Your task to perform on an android device: Go to wifi settings Image 0: 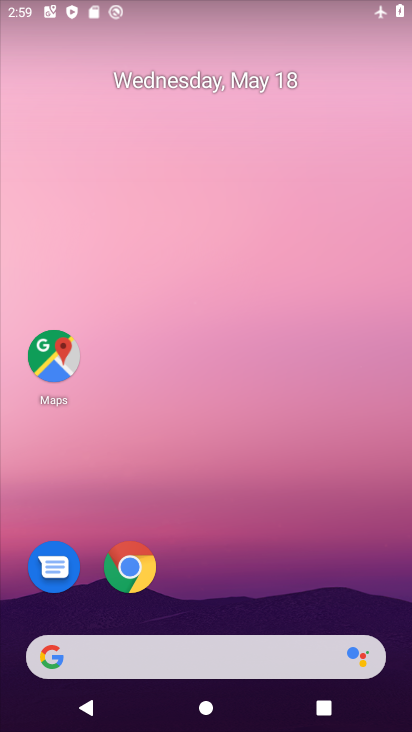
Step 0: drag from (272, 526) to (261, 133)
Your task to perform on an android device: Go to wifi settings Image 1: 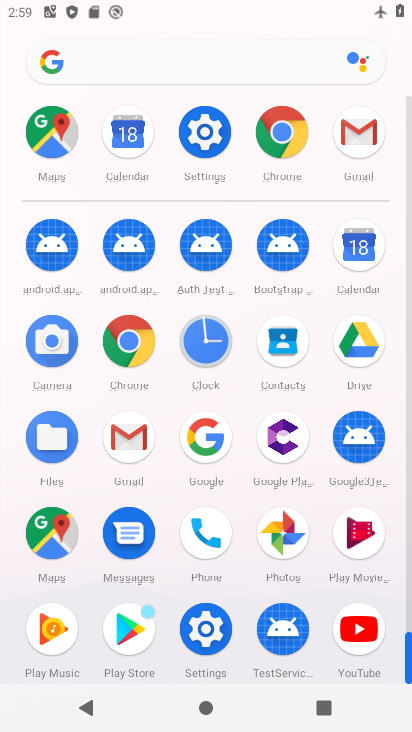
Step 1: click (203, 127)
Your task to perform on an android device: Go to wifi settings Image 2: 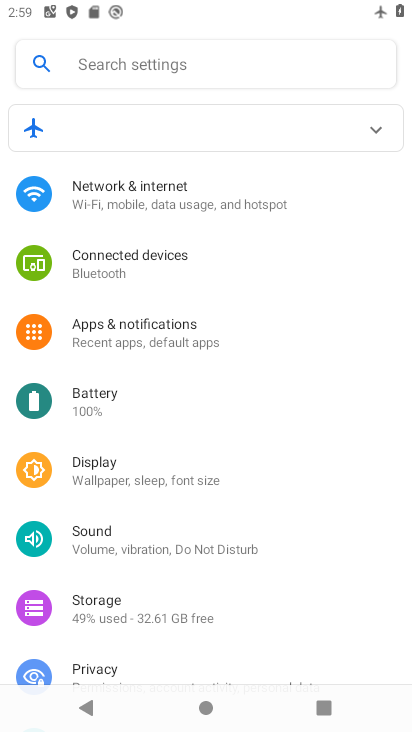
Step 2: click (167, 195)
Your task to perform on an android device: Go to wifi settings Image 3: 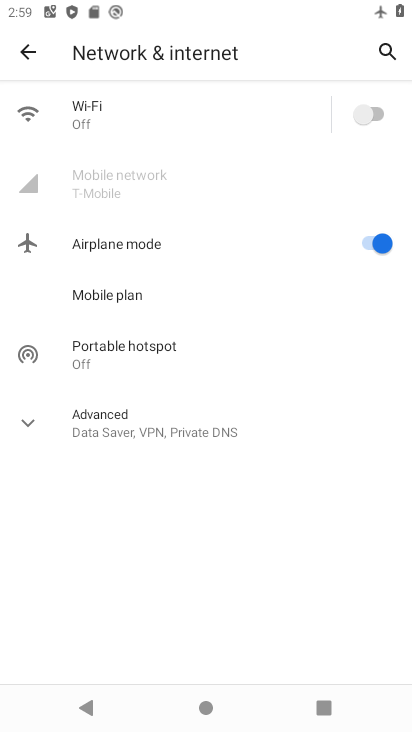
Step 3: click (171, 120)
Your task to perform on an android device: Go to wifi settings Image 4: 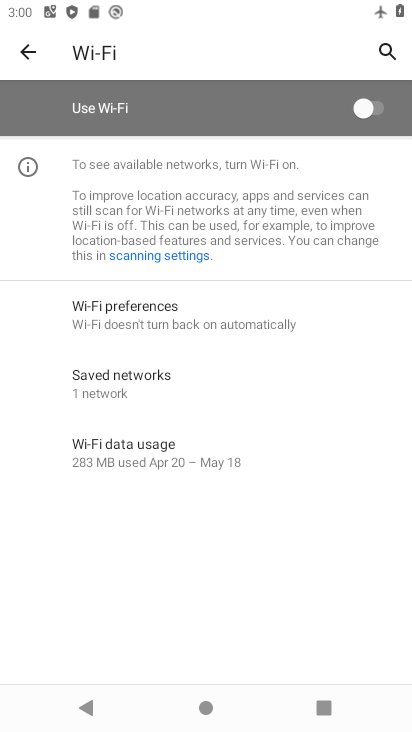
Step 4: task complete